Your task to perform on an android device: Check the weather Image 0: 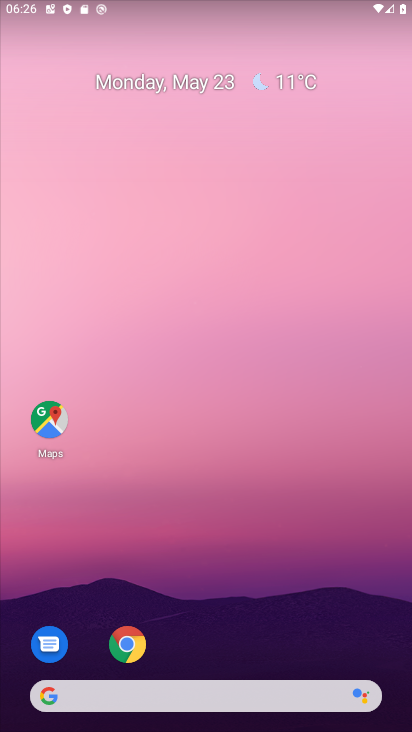
Step 0: click (182, 698)
Your task to perform on an android device: Check the weather Image 1: 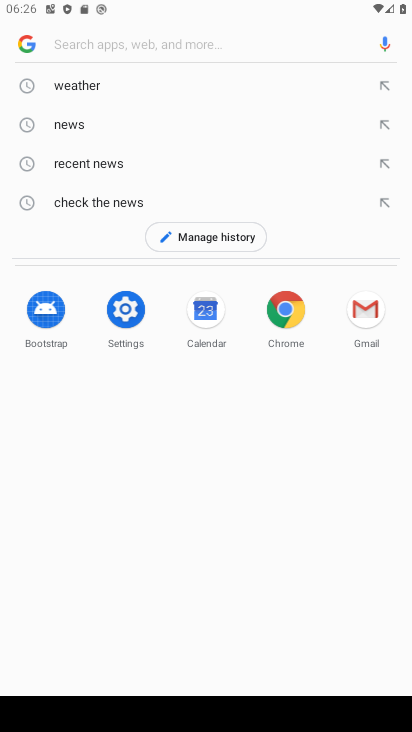
Step 1: click (67, 88)
Your task to perform on an android device: Check the weather Image 2: 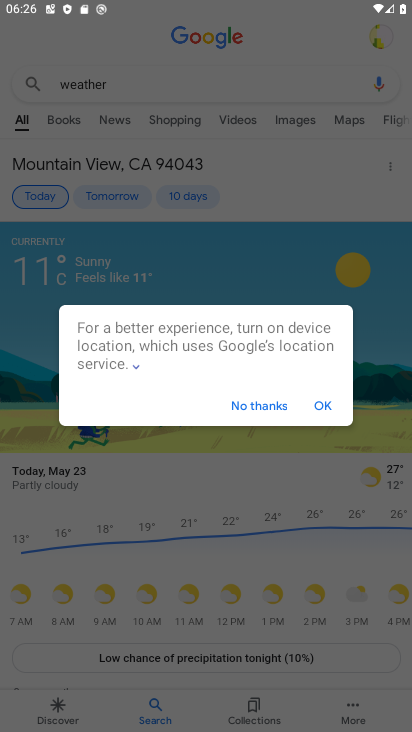
Step 2: click (255, 406)
Your task to perform on an android device: Check the weather Image 3: 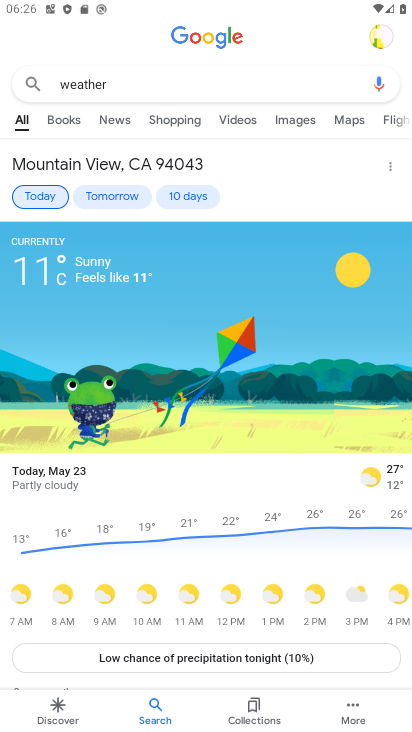
Step 3: task complete